Your task to perform on an android device: Open Google Image 0: 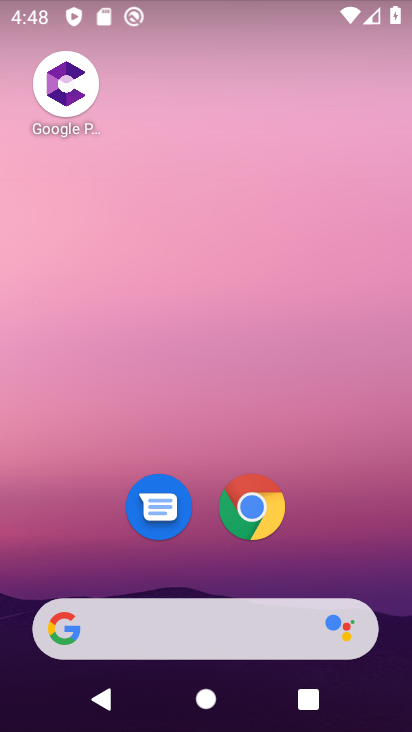
Step 0: drag from (308, 569) to (238, 123)
Your task to perform on an android device: Open Google Image 1: 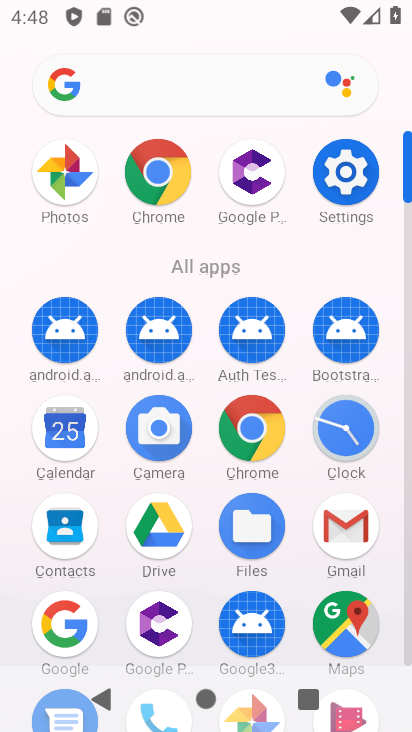
Step 1: click (58, 625)
Your task to perform on an android device: Open Google Image 2: 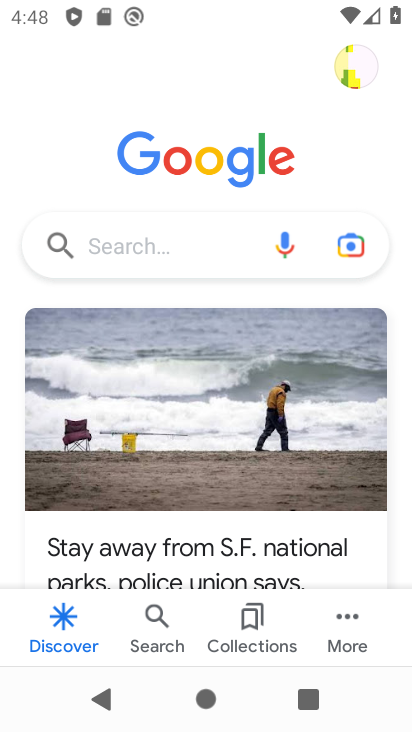
Step 2: task complete